Your task to perform on an android device: Open Google Maps Image 0: 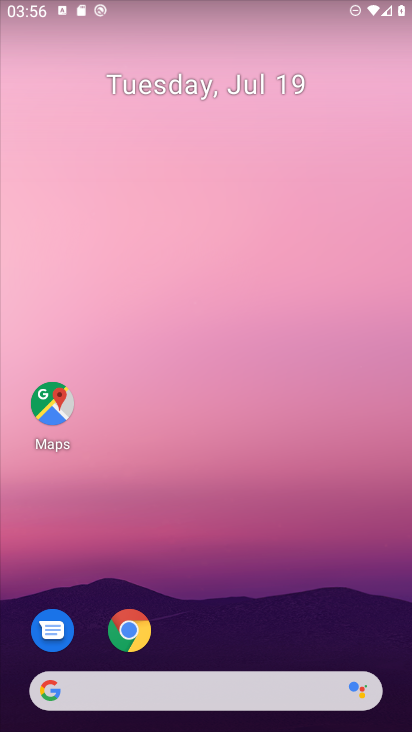
Step 0: click (53, 404)
Your task to perform on an android device: Open Google Maps Image 1: 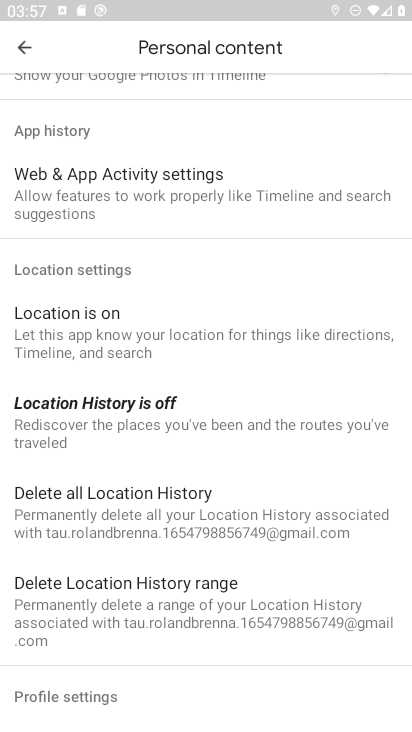
Step 1: task complete